Your task to perform on an android device: Is it going to rain tomorrow? Image 0: 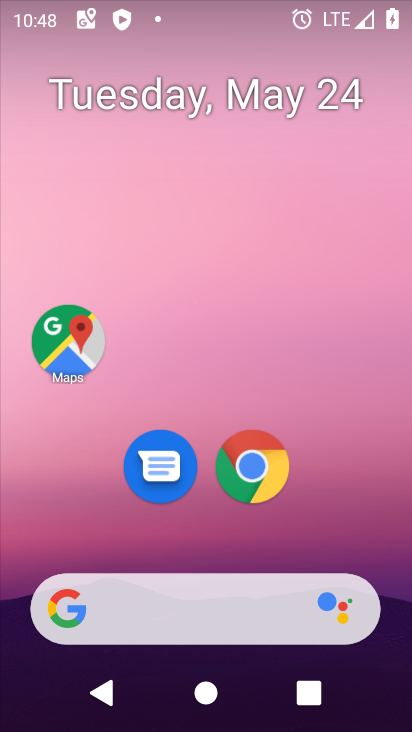
Step 0: click (220, 615)
Your task to perform on an android device: Is it going to rain tomorrow? Image 1: 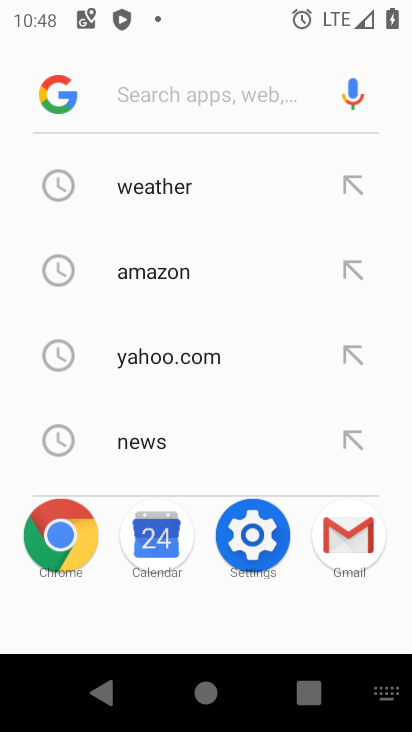
Step 1: click (184, 173)
Your task to perform on an android device: Is it going to rain tomorrow? Image 2: 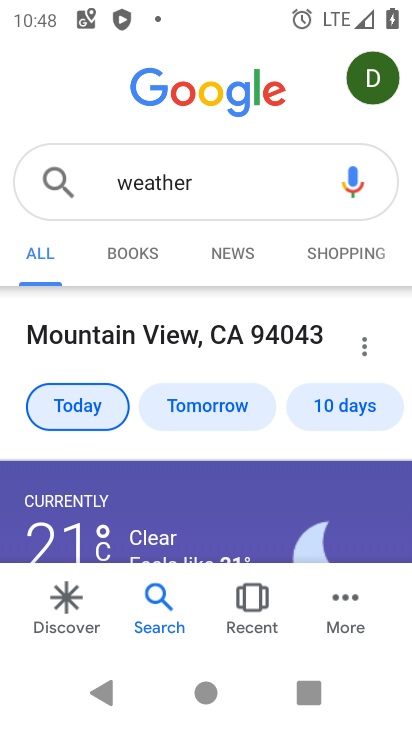
Step 2: click (225, 411)
Your task to perform on an android device: Is it going to rain tomorrow? Image 3: 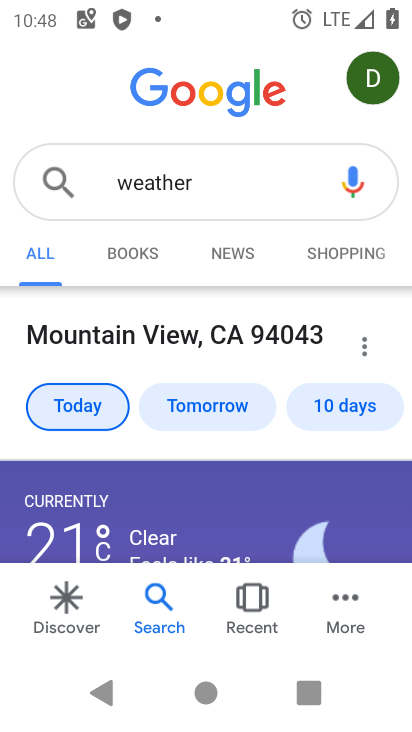
Step 3: click (225, 411)
Your task to perform on an android device: Is it going to rain tomorrow? Image 4: 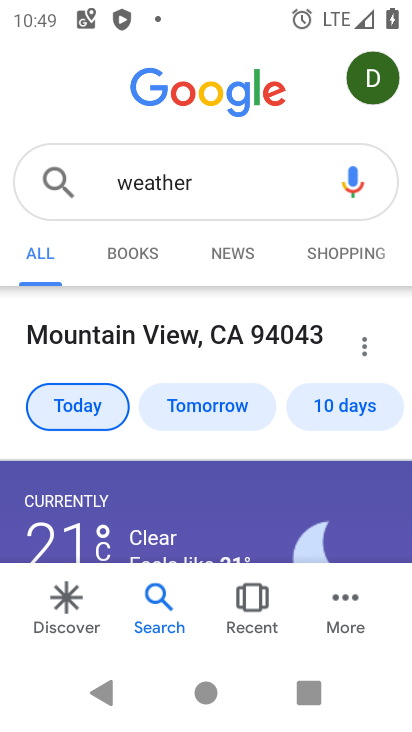
Step 4: click (243, 409)
Your task to perform on an android device: Is it going to rain tomorrow? Image 5: 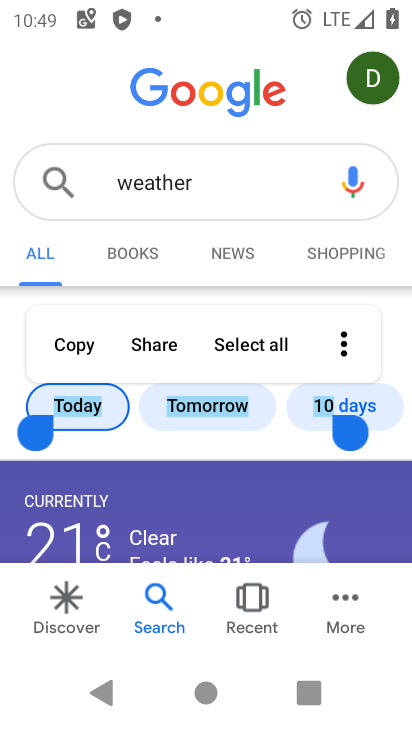
Step 5: click (243, 409)
Your task to perform on an android device: Is it going to rain tomorrow? Image 6: 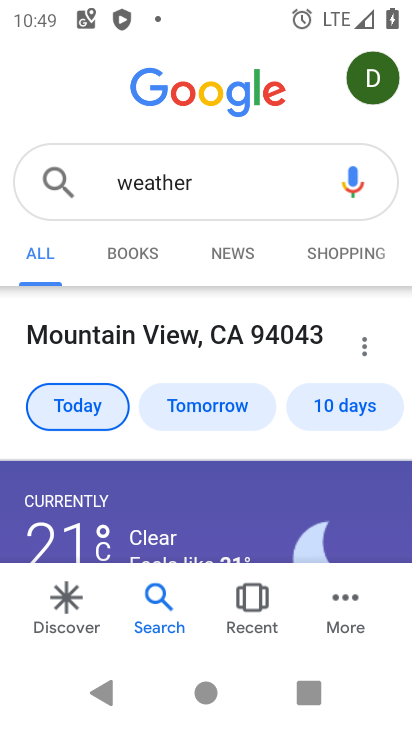
Step 6: click (243, 409)
Your task to perform on an android device: Is it going to rain tomorrow? Image 7: 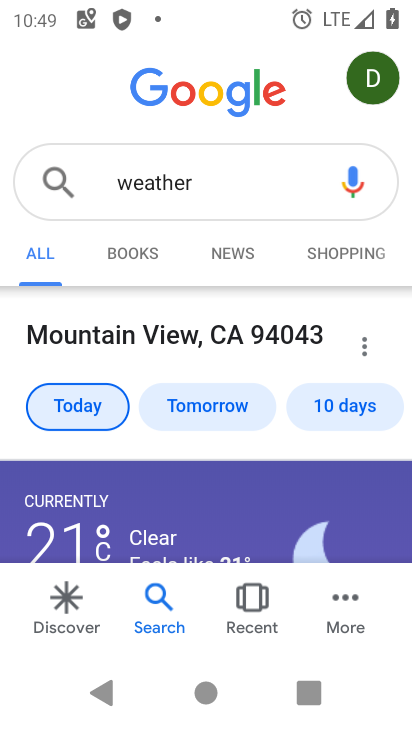
Step 7: click (243, 409)
Your task to perform on an android device: Is it going to rain tomorrow? Image 8: 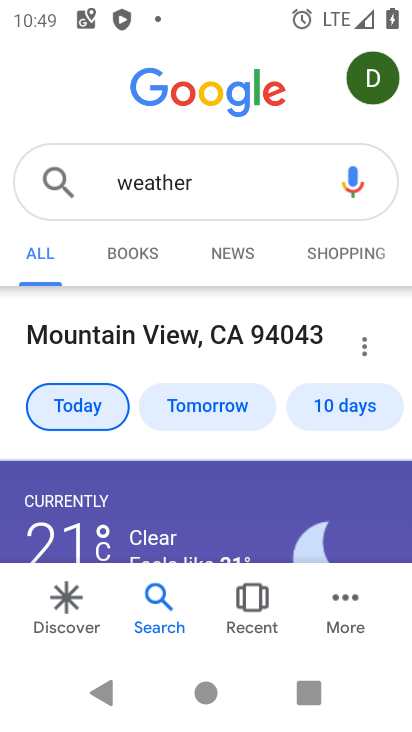
Step 8: click (243, 409)
Your task to perform on an android device: Is it going to rain tomorrow? Image 9: 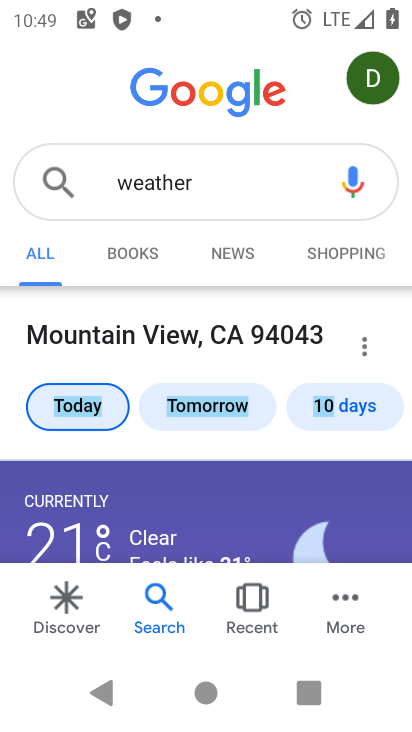
Step 9: click (243, 409)
Your task to perform on an android device: Is it going to rain tomorrow? Image 10: 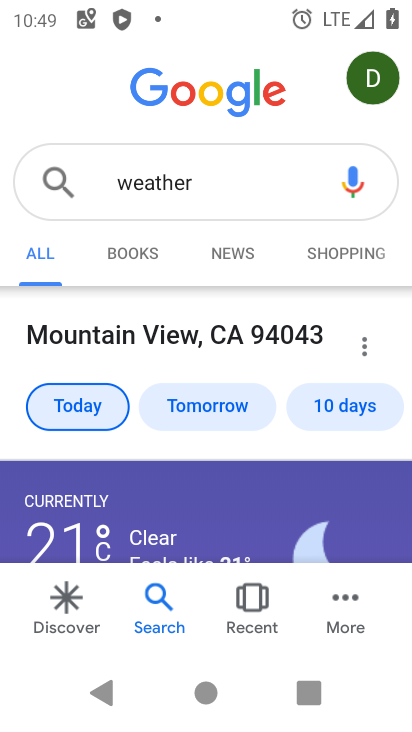
Step 10: task complete